Your task to perform on an android device: install app "Adobe Acrobat Reader: Edit PDF" Image 0: 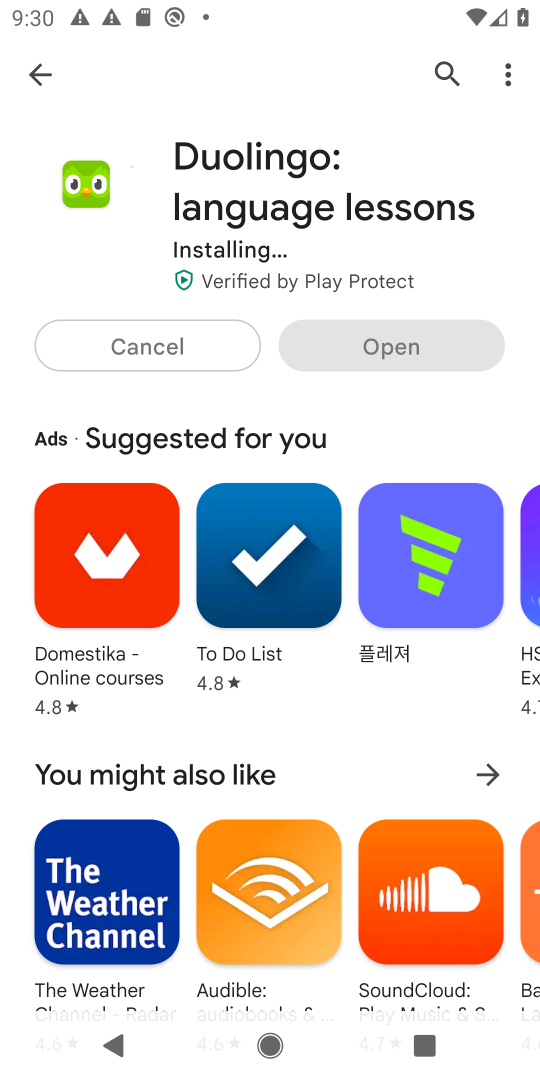
Step 0: drag from (274, 786) to (359, 89)
Your task to perform on an android device: install app "Adobe Acrobat Reader: Edit PDF" Image 1: 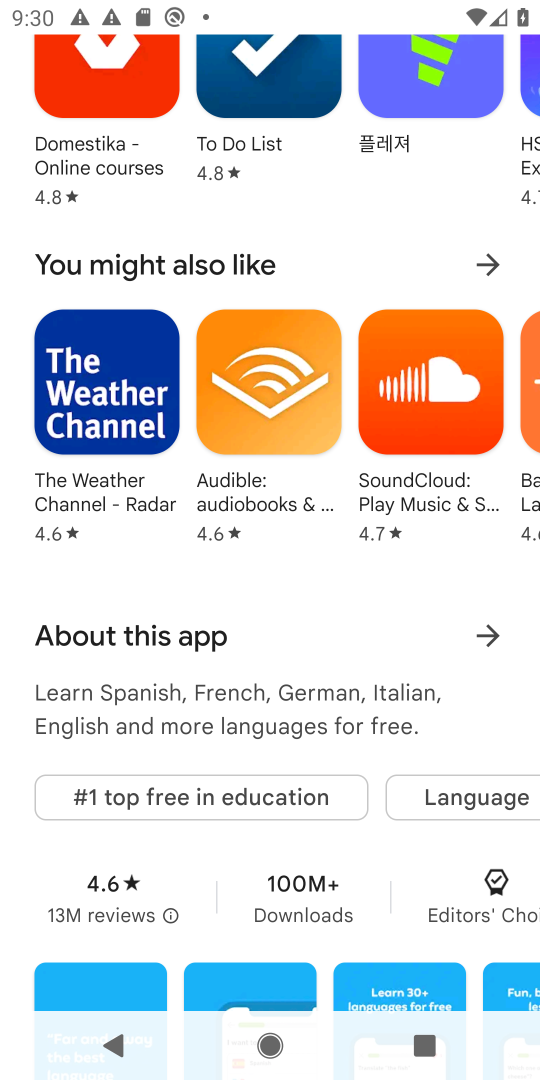
Step 1: drag from (309, 235) to (291, 1079)
Your task to perform on an android device: install app "Adobe Acrobat Reader: Edit PDF" Image 2: 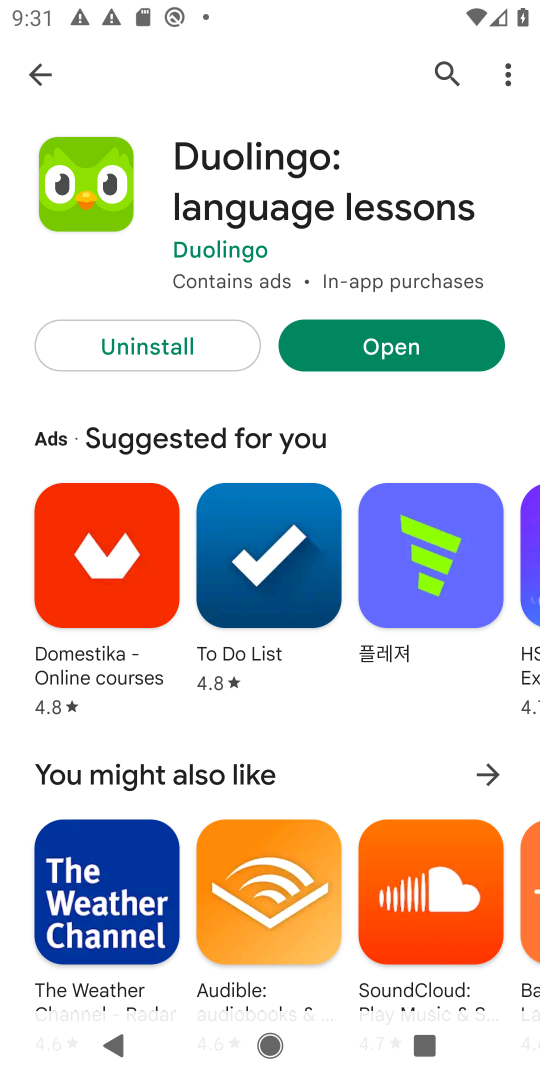
Step 2: click (441, 76)
Your task to perform on an android device: install app "Adobe Acrobat Reader: Edit PDF" Image 3: 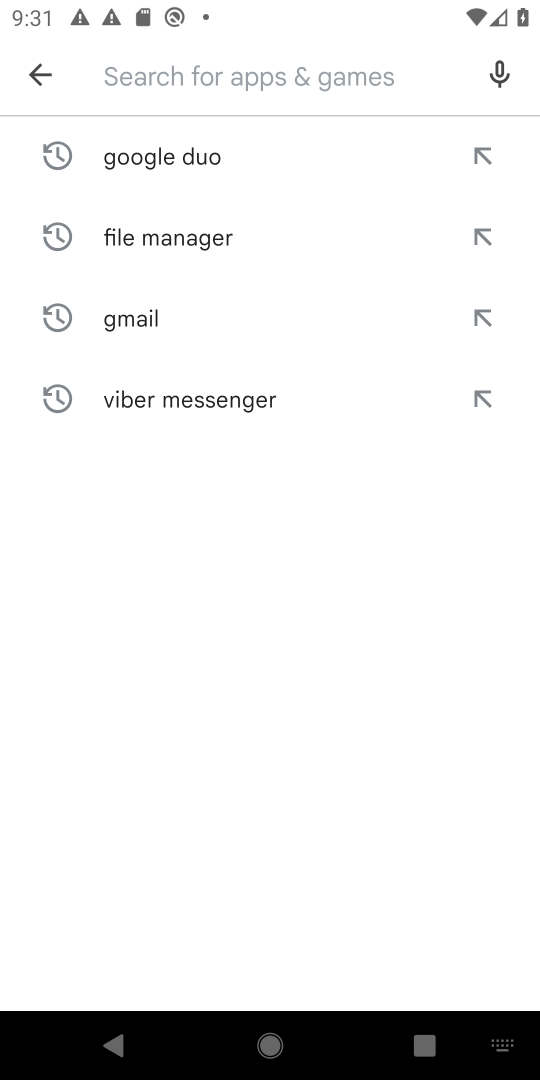
Step 3: type "Adobe Acrobat Reader: Edit PDF"
Your task to perform on an android device: install app "Adobe Acrobat Reader: Edit PDF" Image 4: 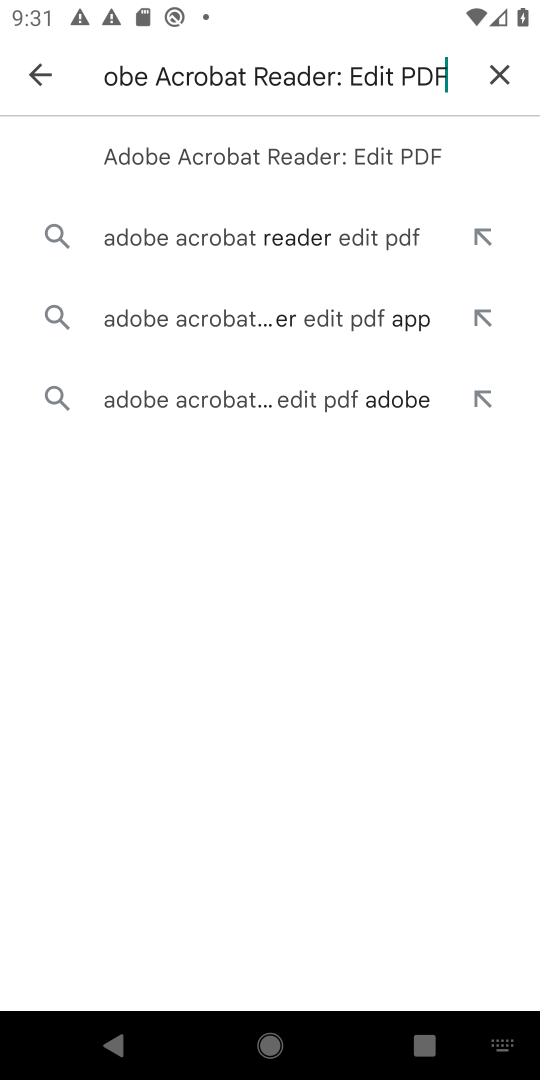
Step 4: type ""
Your task to perform on an android device: install app "Adobe Acrobat Reader: Edit PDF" Image 5: 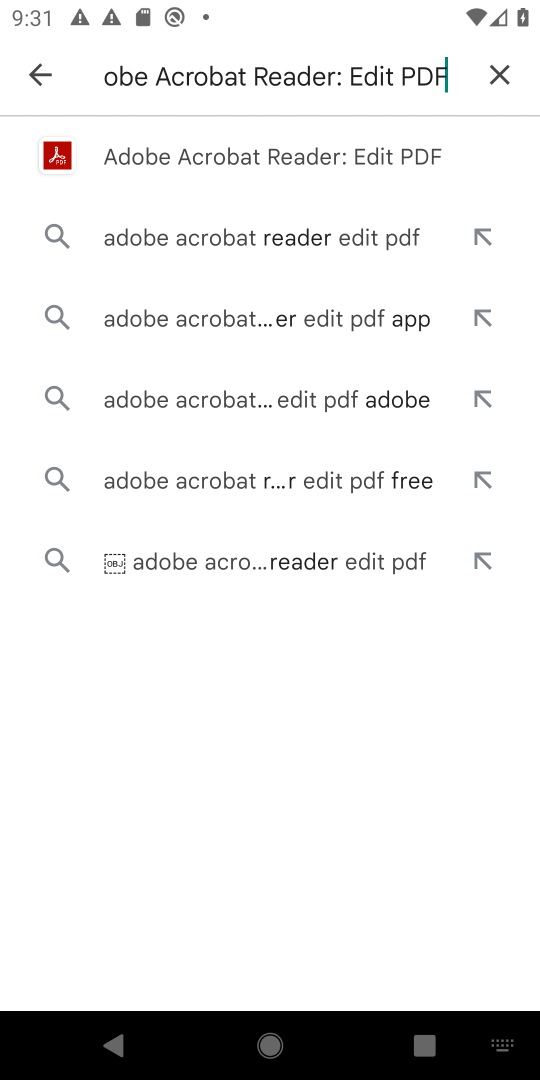
Step 5: click (393, 159)
Your task to perform on an android device: install app "Adobe Acrobat Reader: Edit PDF" Image 6: 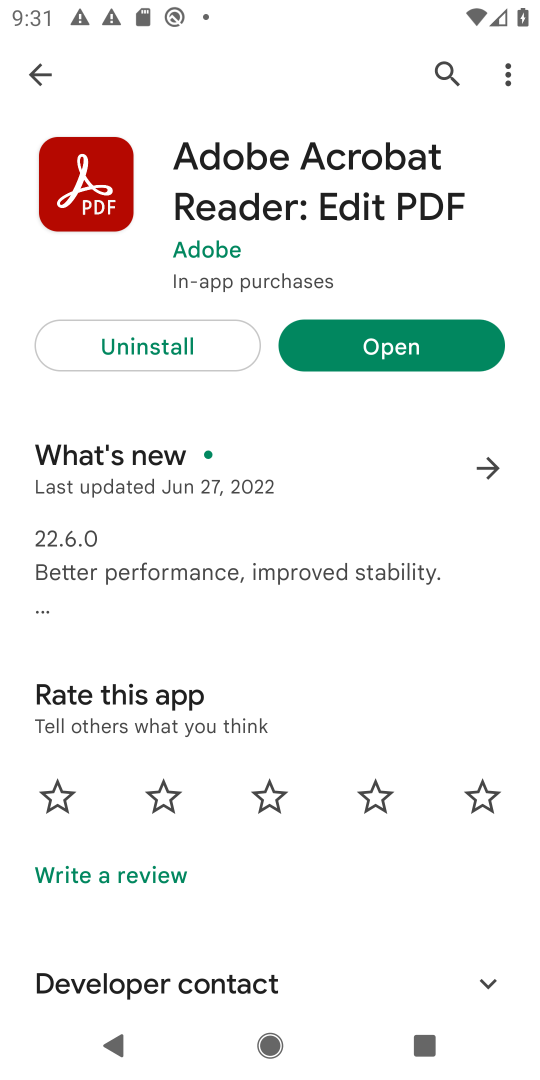
Step 6: click (257, 143)
Your task to perform on an android device: install app "Adobe Acrobat Reader: Edit PDF" Image 7: 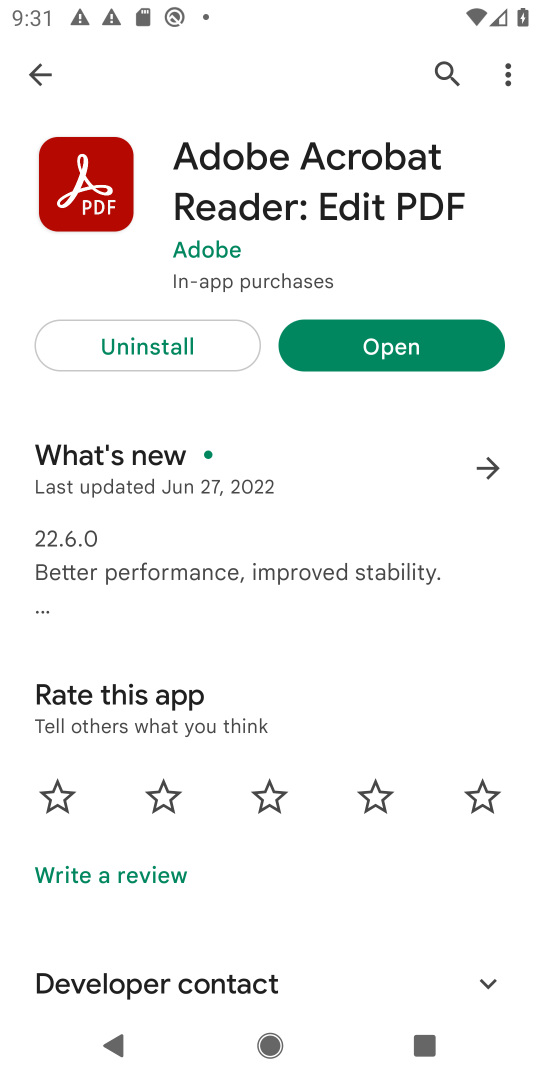
Step 7: task complete